Your task to perform on an android device: turn on priority inbox in the gmail app Image 0: 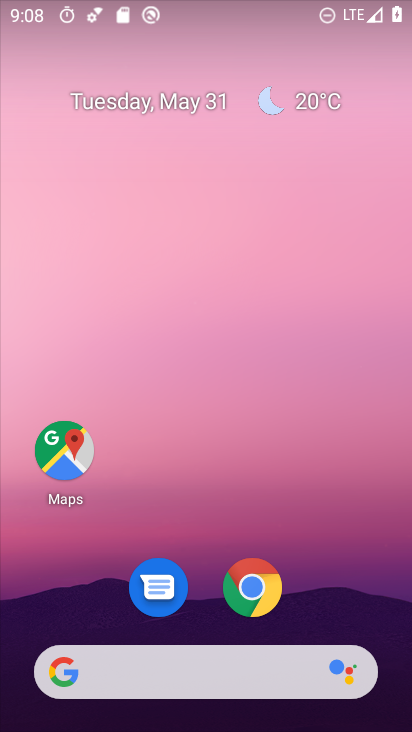
Step 0: drag from (211, 628) to (232, 77)
Your task to perform on an android device: turn on priority inbox in the gmail app Image 1: 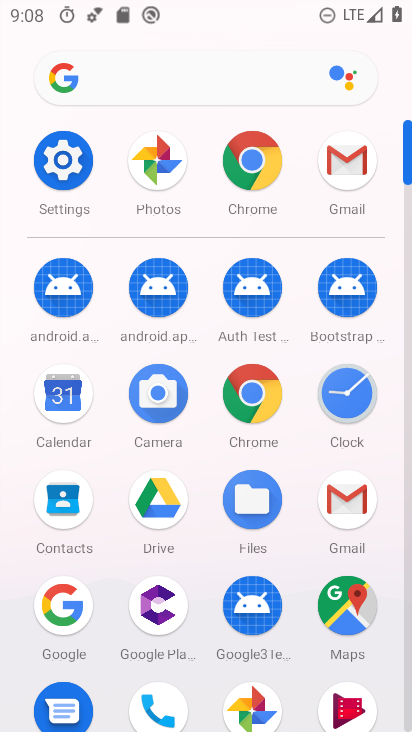
Step 1: click (333, 173)
Your task to perform on an android device: turn on priority inbox in the gmail app Image 2: 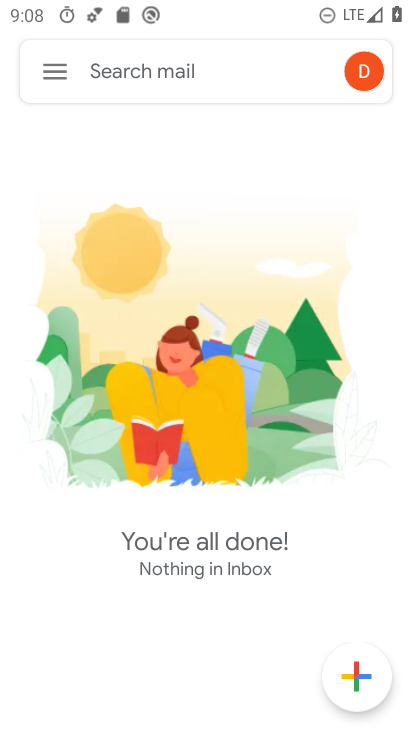
Step 2: click (55, 70)
Your task to perform on an android device: turn on priority inbox in the gmail app Image 3: 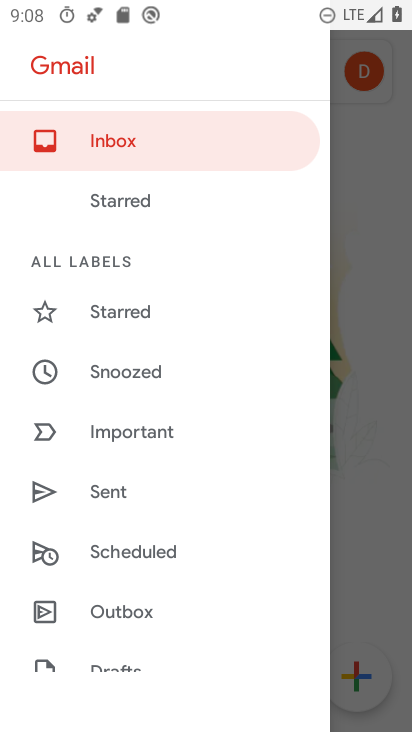
Step 3: task complete